Your task to perform on an android device: turn on priority inbox in the gmail app Image 0: 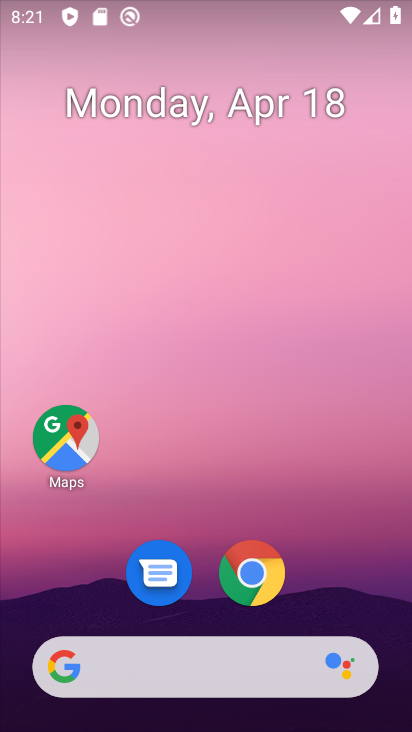
Step 0: drag from (334, 603) to (368, 193)
Your task to perform on an android device: turn on priority inbox in the gmail app Image 1: 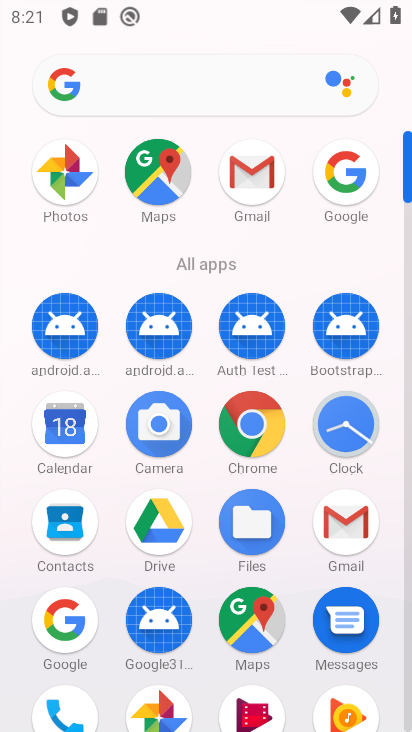
Step 1: click (259, 178)
Your task to perform on an android device: turn on priority inbox in the gmail app Image 2: 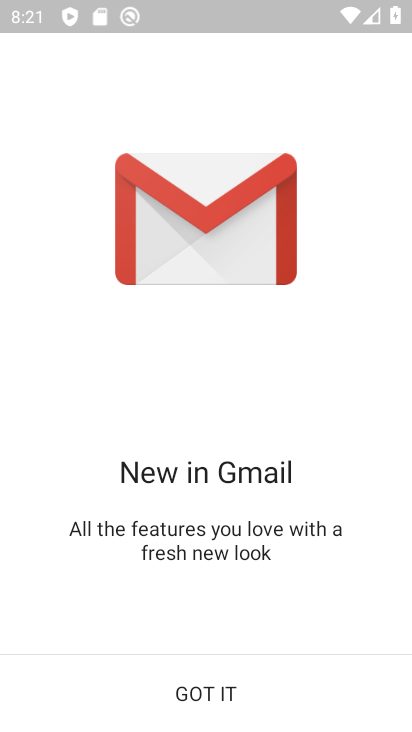
Step 2: click (205, 696)
Your task to perform on an android device: turn on priority inbox in the gmail app Image 3: 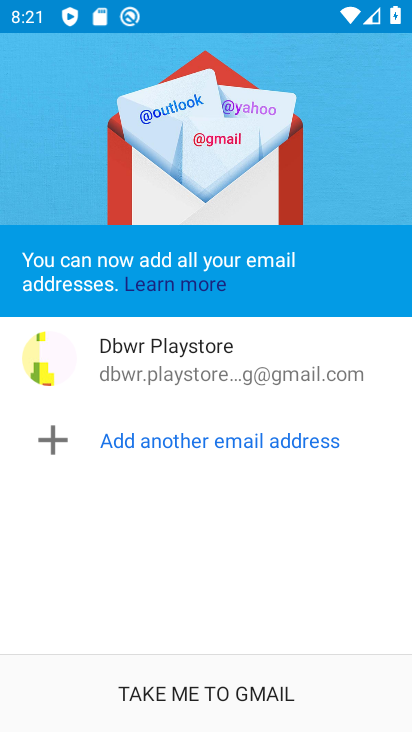
Step 3: click (198, 696)
Your task to perform on an android device: turn on priority inbox in the gmail app Image 4: 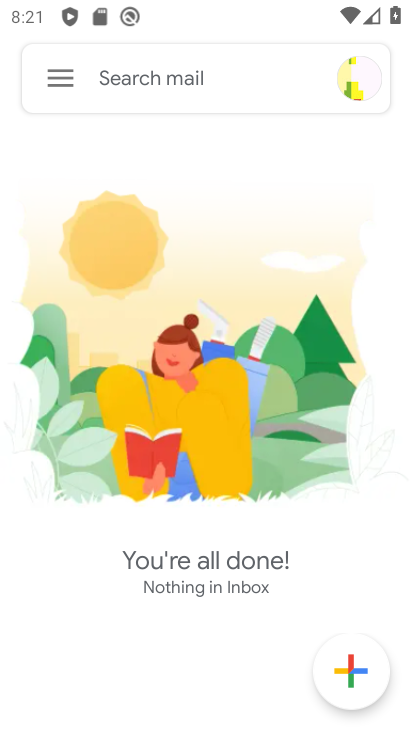
Step 4: click (63, 70)
Your task to perform on an android device: turn on priority inbox in the gmail app Image 5: 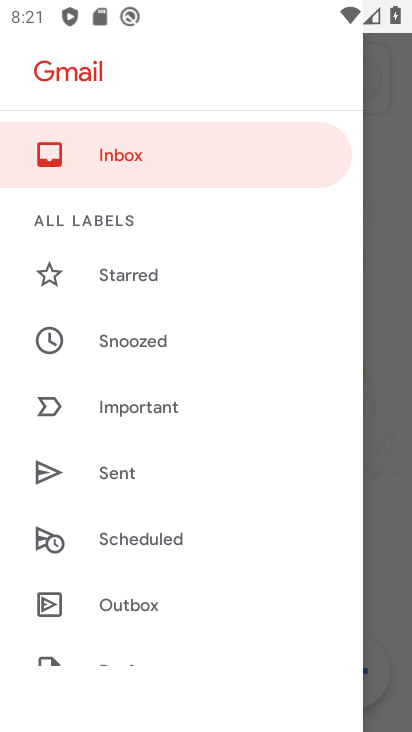
Step 5: drag from (180, 609) to (155, 242)
Your task to perform on an android device: turn on priority inbox in the gmail app Image 6: 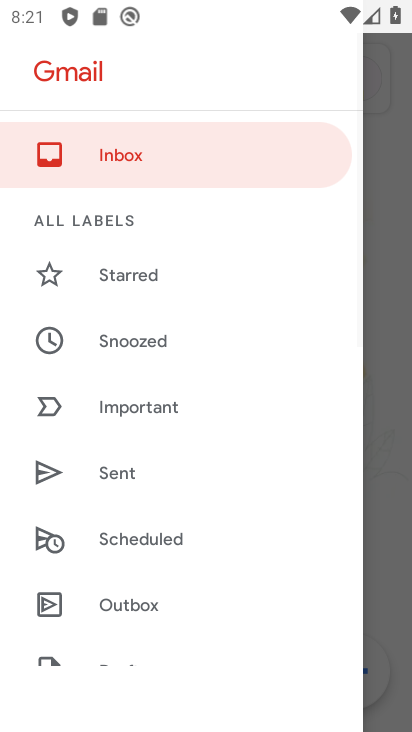
Step 6: drag from (180, 520) to (200, 297)
Your task to perform on an android device: turn on priority inbox in the gmail app Image 7: 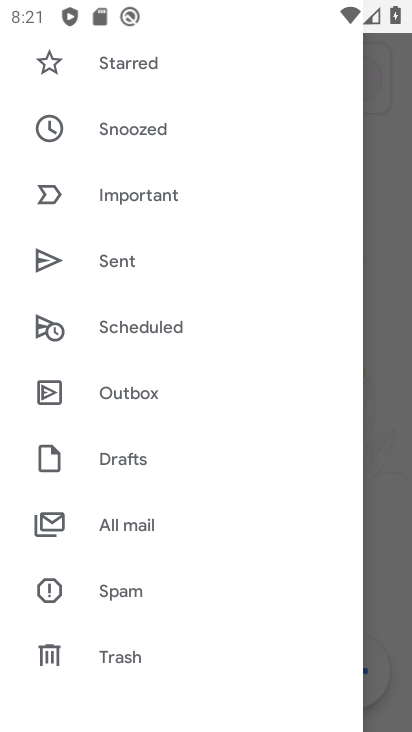
Step 7: drag from (207, 561) to (243, 242)
Your task to perform on an android device: turn on priority inbox in the gmail app Image 8: 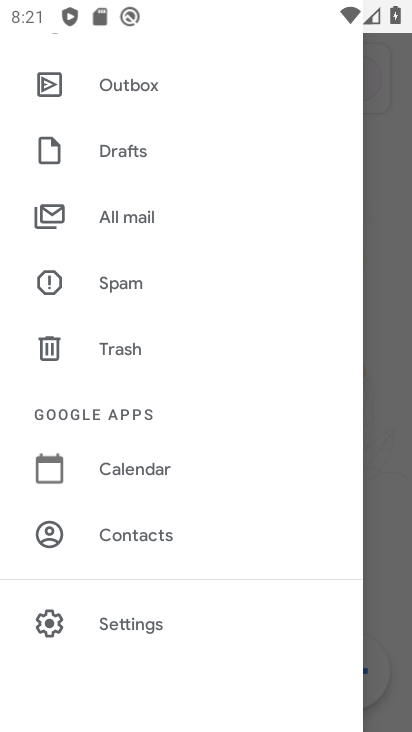
Step 8: click (137, 626)
Your task to perform on an android device: turn on priority inbox in the gmail app Image 9: 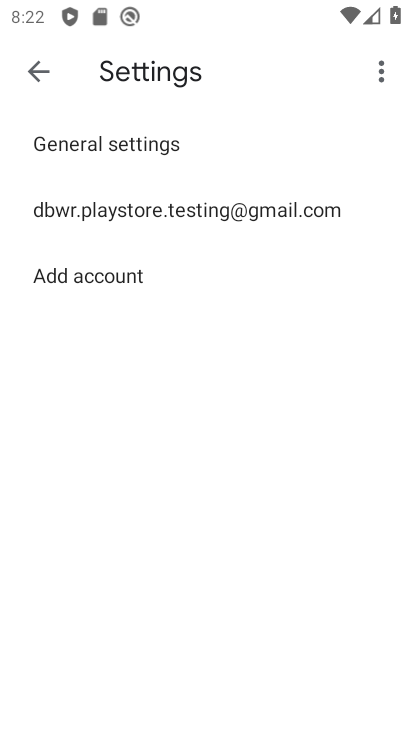
Step 9: click (164, 206)
Your task to perform on an android device: turn on priority inbox in the gmail app Image 10: 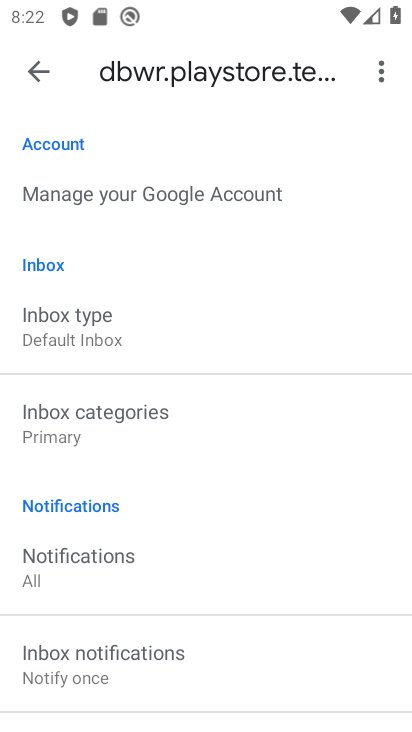
Step 10: drag from (146, 623) to (159, 549)
Your task to perform on an android device: turn on priority inbox in the gmail app Image 11: 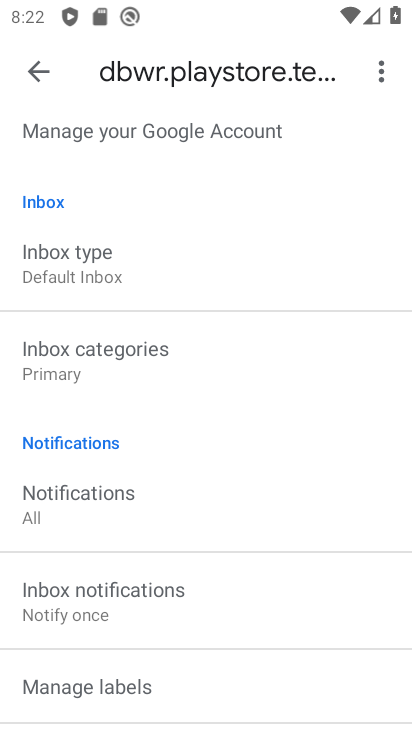
Step 11: click (87, 275)
Your task to perform on an android device: turn on priority inbox in the gmail app Image 12: 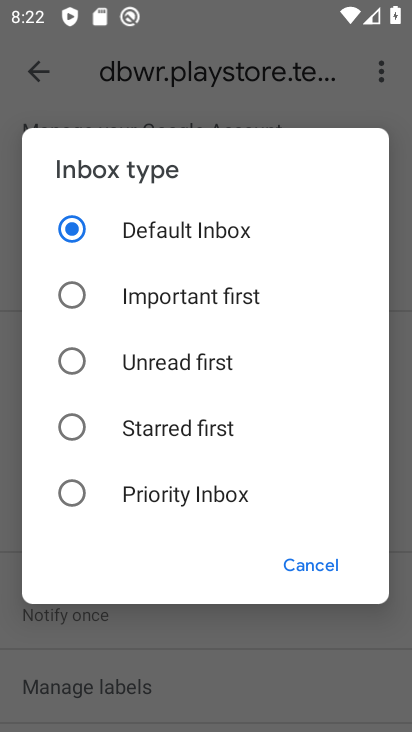
Step 12: click (223, 496)
Your task to perform on an android device: turn on priority inbox in the gmail app Image 13: 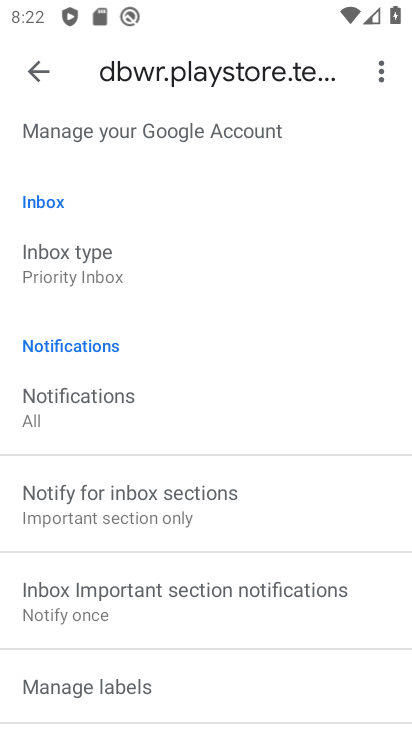
Step 13: task complete